Your task to perform on an android device: Show me popular games on the Play Store Image 0: 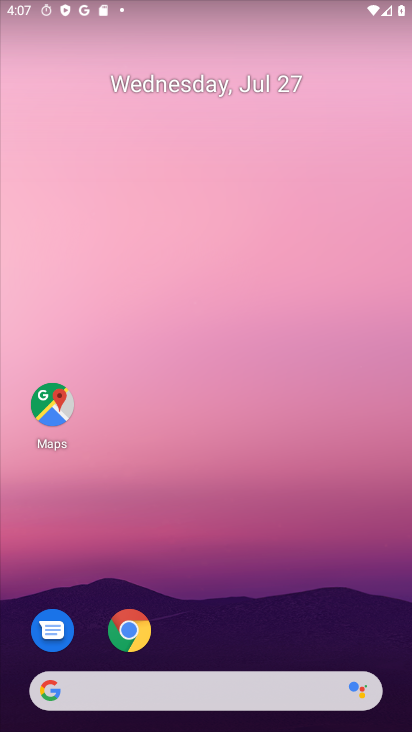
Step 0: drag from (207, 644) to (212, 1)
Your task to perform on an android device: Show me popular games on the Play Store Image 1: 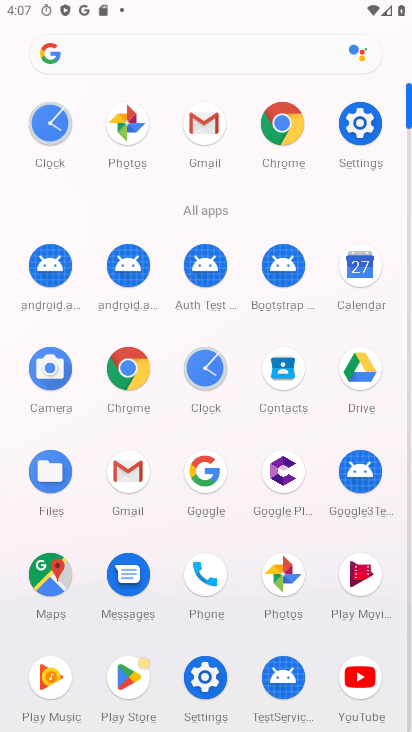
Step 1: click (133, 680)
Your task to perform on an android device: Show me popular games on the Play Store Image 2: 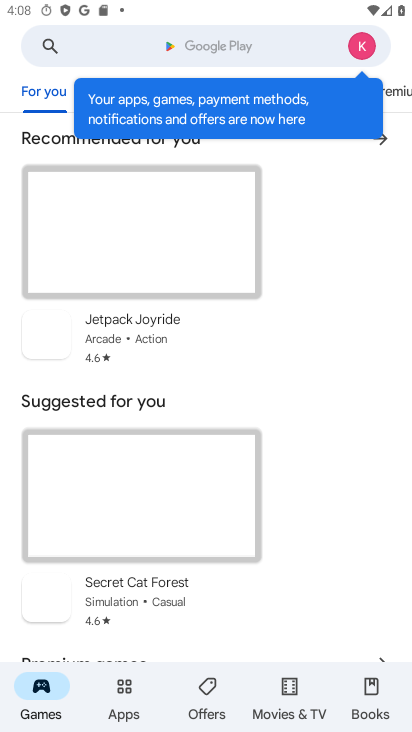
Step 2: click (132, 95)
Your task to perform on an android device: Show me popular games on the Play Store Image 3: 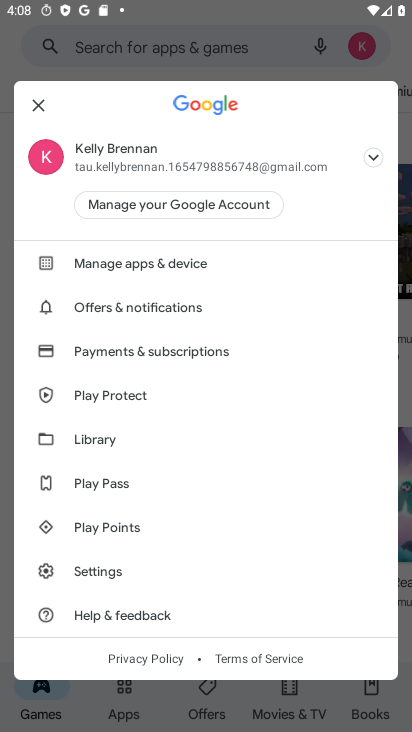
Step 3: click (36, 99)
Your task to perform on an android device: Show me popular games on the Play Store Image 4: 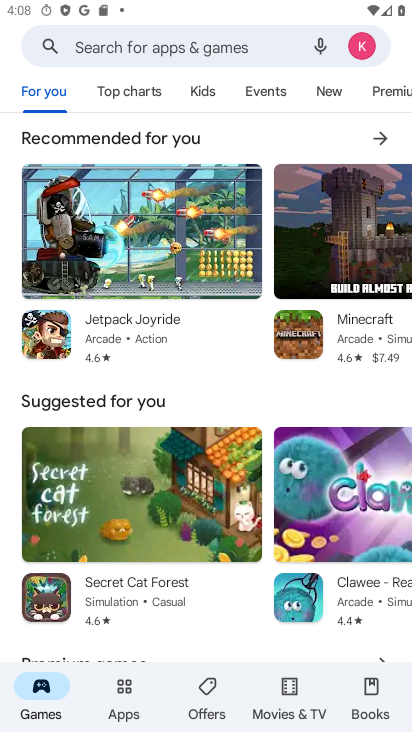
Step 4: click (126, 91)
Your task to perform on an android device: Show me popular games on the Play Store Image 5: 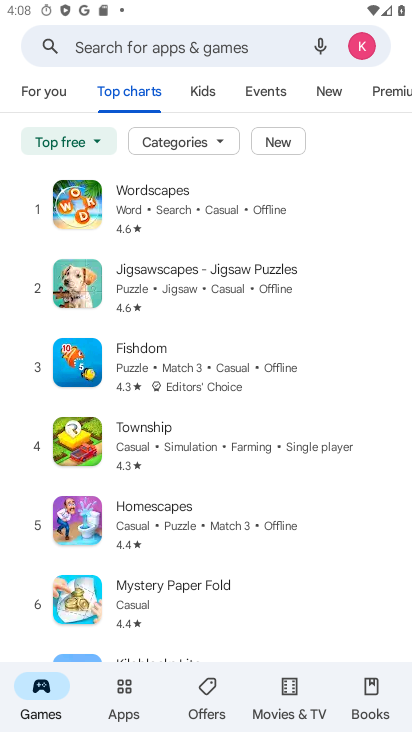
Step 5: task complete